Your task to perform on an android device: turn off smart reply in the gmail app Image 0: 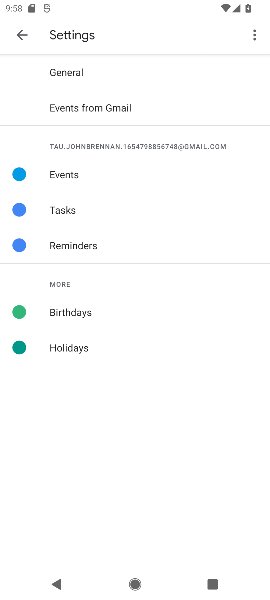
Step 0: press home button
Your task to perform on an android device: turn off smart reply in the gmail app Image 1: 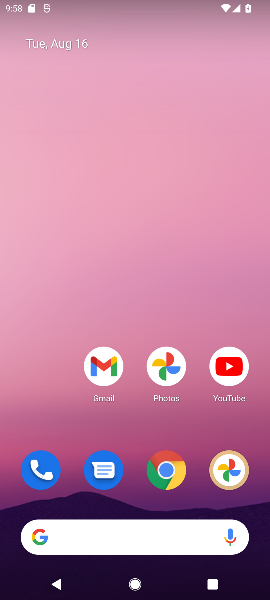
Step 1: click (103, 360)
Your task to perform on an android device: turn off smart reply in the gmail app Image 2: 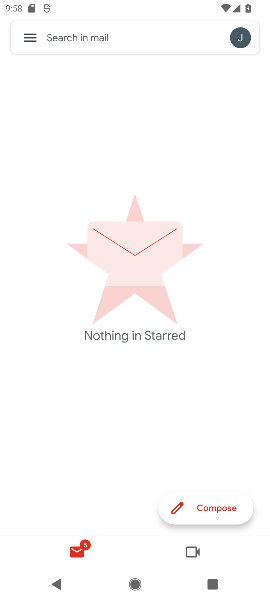
Step 2: click (33, 31)
Your task to perform on an android device: turn off smart reply in the gmail app Image 3: 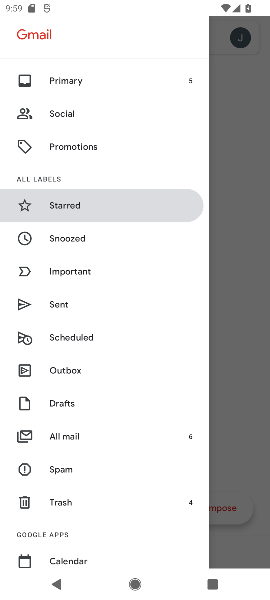
Step 3: drag from (113, 492) to (134, 357)
Your task to perform on an android device: turn off smart reply in the gmail app Image 4: 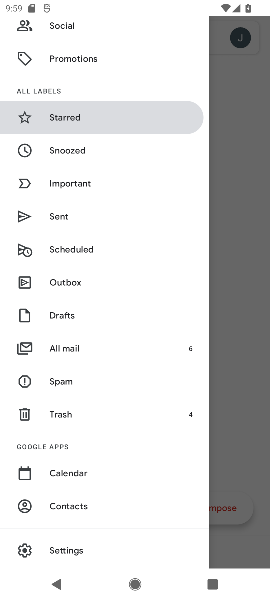
Step 4: click (66, 547)
Your task to perform on an android device: turn off smart reply in the gmail app Image 5: 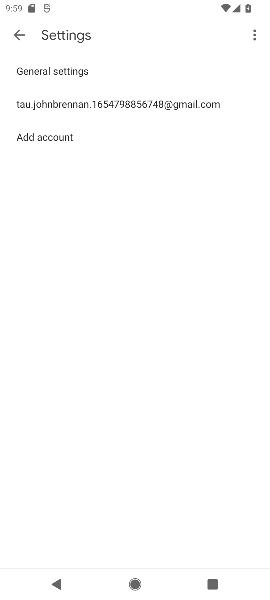
Step 5: click (189, 105)
Your task to perform on an android device: turn off smart reply in the gmail app Image 6: 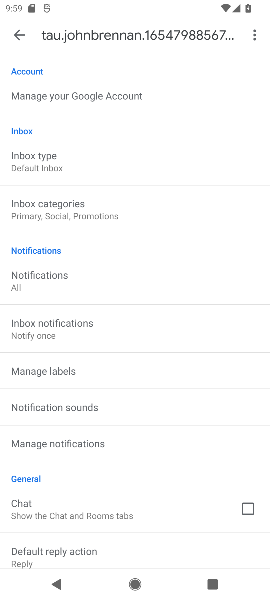
Step 6: drag from (124, 468) to (175, 49)
Your task to perform on an android device: turn off smart reply in the gmail app Image 7: 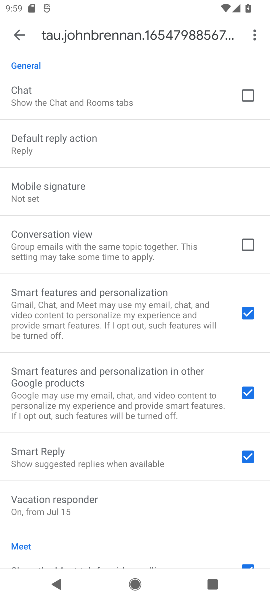
Step 7: click (247, 454)
Your task to perform on an android device: turn off smart reply in the gmail app Image 8: 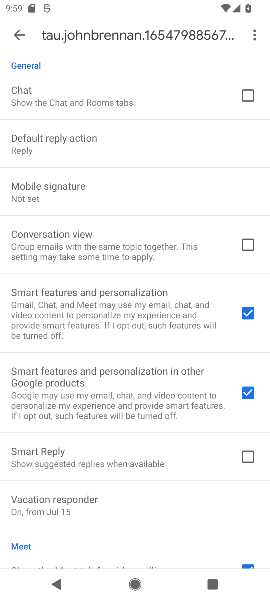
Step 8: task complete